Your task to perform on an android device: Do I have any events this weekend? Image 0: 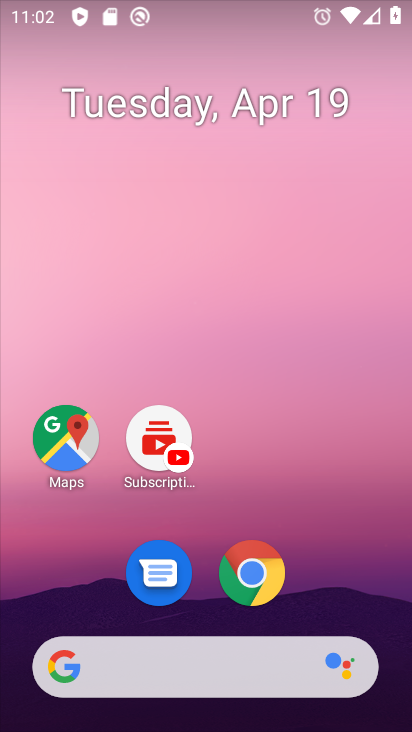
Step 0: drag from (331, 594) to (261, 57)
Your task to perform on an android device: Do I have any events this weekend? Image 1: 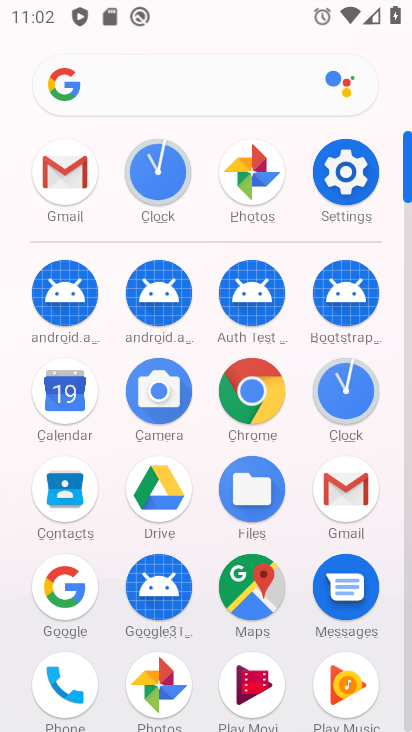
Step 1: click (55, 397)
Your task to perform on an android device: Do I have any events this weekend? Image 2: 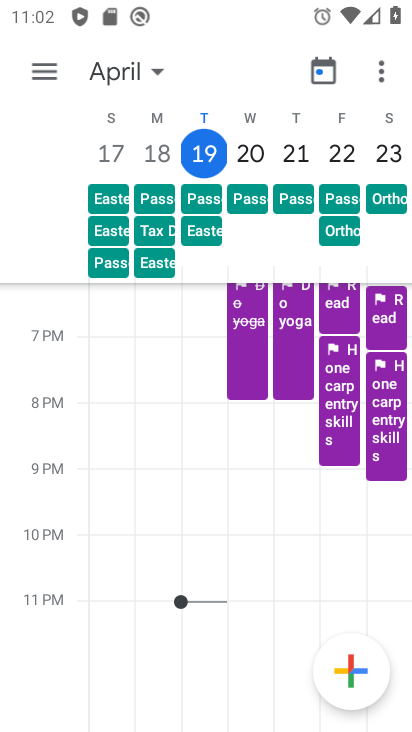
Step 2: task complete